Your task to perform on an android device: Go to Google Image 0: 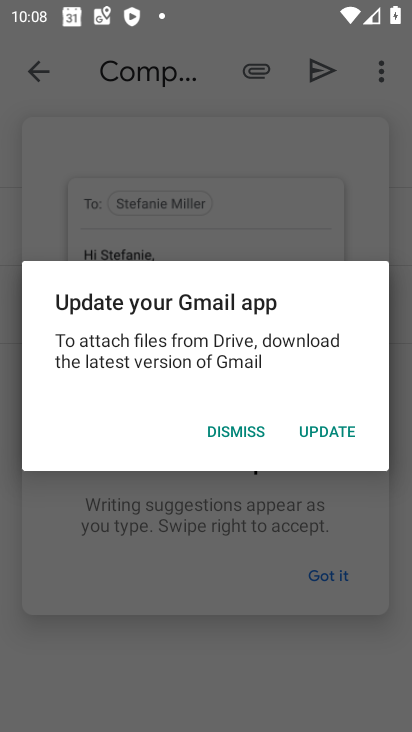
Step 0: press home button
Your task to perform on an android device: Go to Google Image 1: 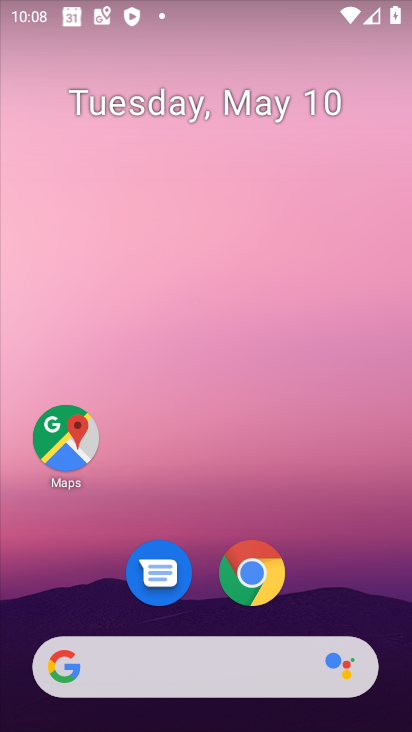
Step 1: click (128, 683)
Your task to perform on an android device: Go to Google Image 2: 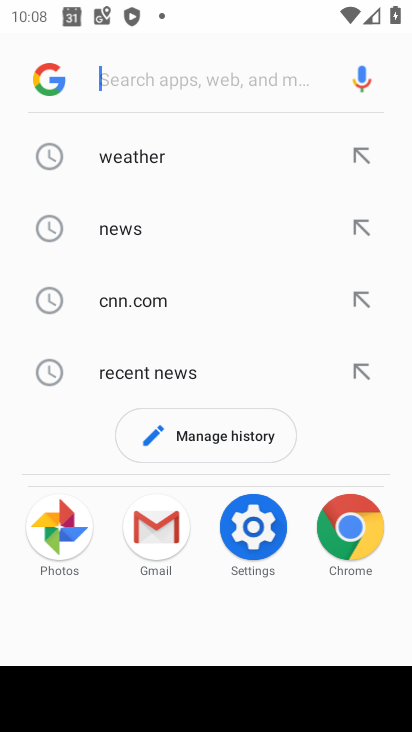
Step 2: task complete